Your task to perform on an android device: visit the assistant section in the google photos Image 0: 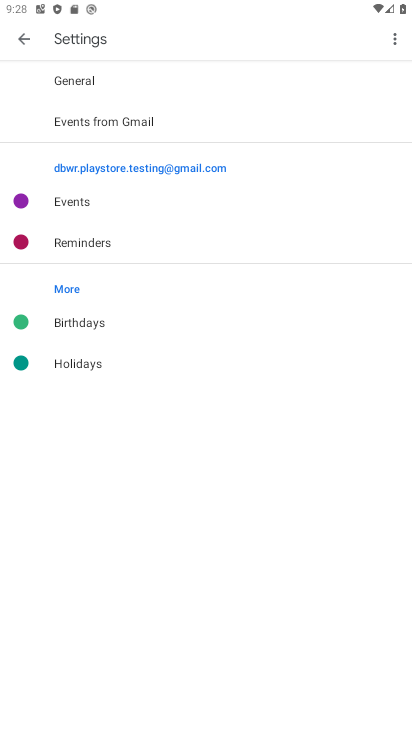
Step 0: press home button
Your task to perform on an android device: visit the assistant section in the google photos Image 1: 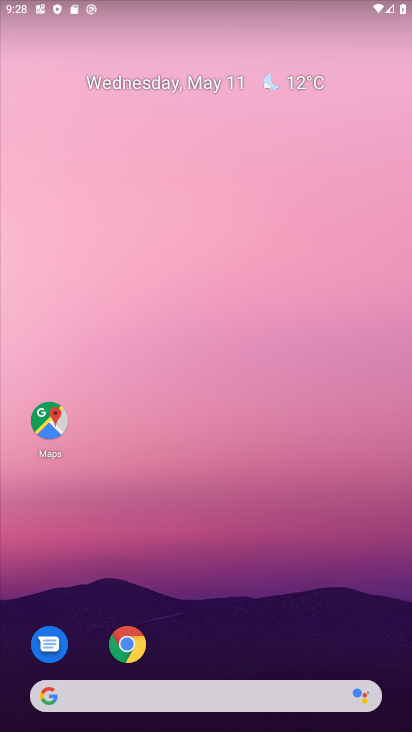
Step 1: drag from (323, 605) to (310, 285)
Your task to perform on an android device: visit the assistant section in the google photos Image 2: 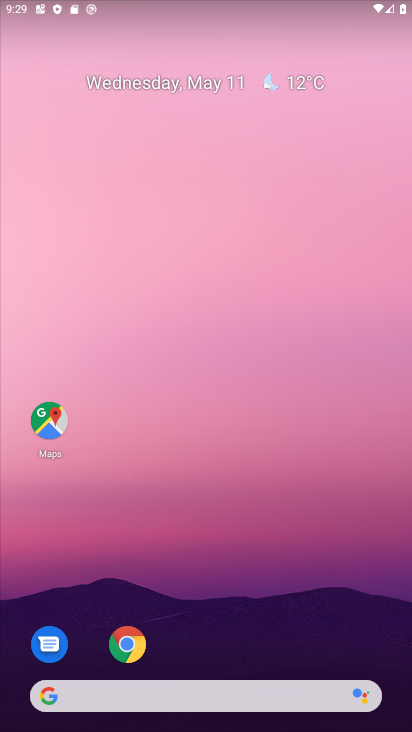
Step 2: drag from (234, 600) to (236, 8)
Your task to perform on an android device: visit the assistant section in the google photos Image 3: 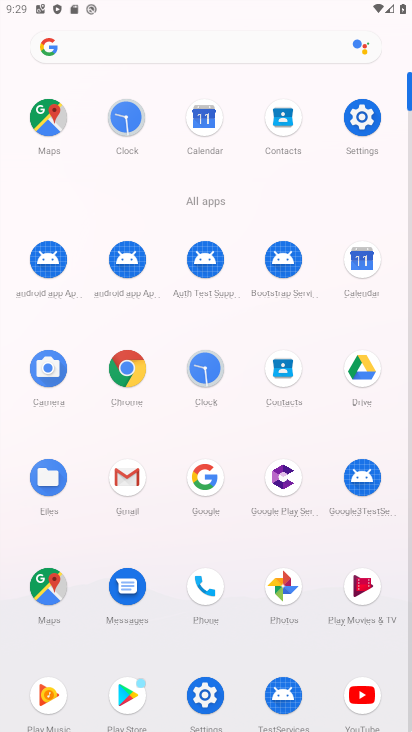
Step 3: click (281, 577)
Your task to perform on an android device: visit the assistant section in the google photos Image 4: 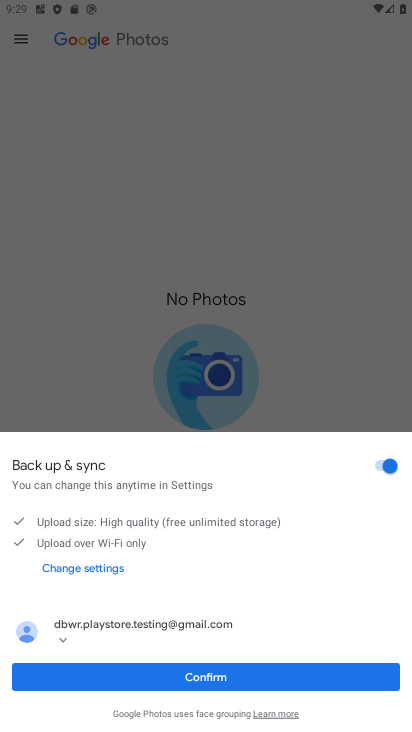
Step 4: click (232, 676)
Your task to perform on an android device: visit the assistant section in the google photos Image 5: 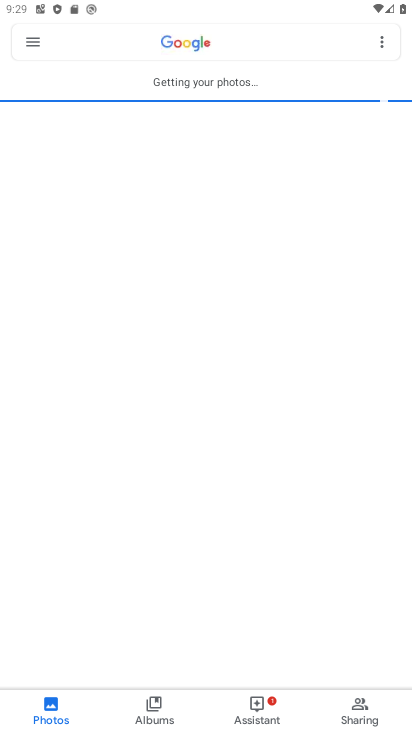
Step 5: click (245, 702)
Your task to perform on an android device: visit the assistant section in the google photos Image 6: 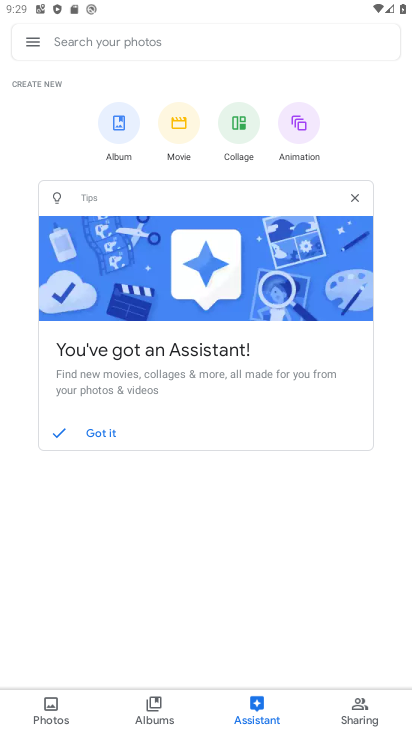
Step 6: task complete